Your task to perform on an android device: Open Google Image 0: 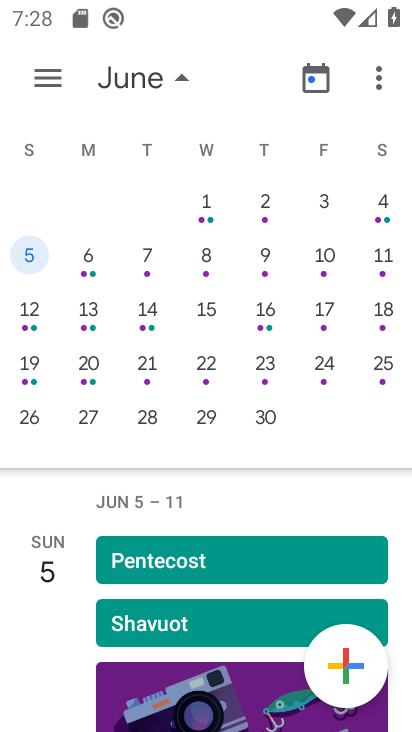
Step 0: press home button
Your task to perform on an android device: Open Google Image 1: 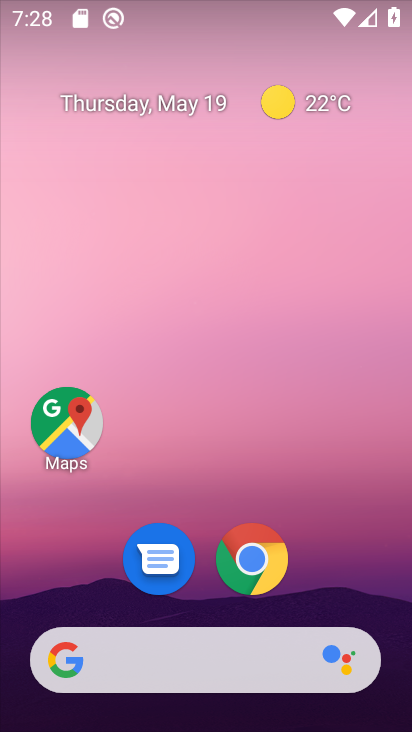
Step 1: drag from (312, 590) to (273, 12)
Your task to perform on an android device: Open Google Image 2: 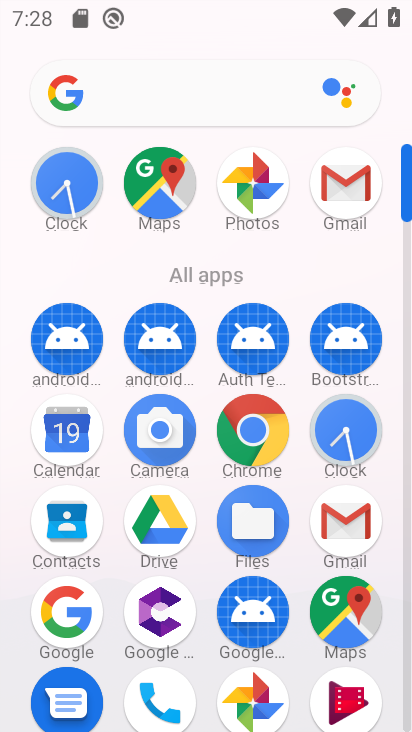
Step 2: click (63, 623)
Your task to perform on an android device: Open Google Image 3: 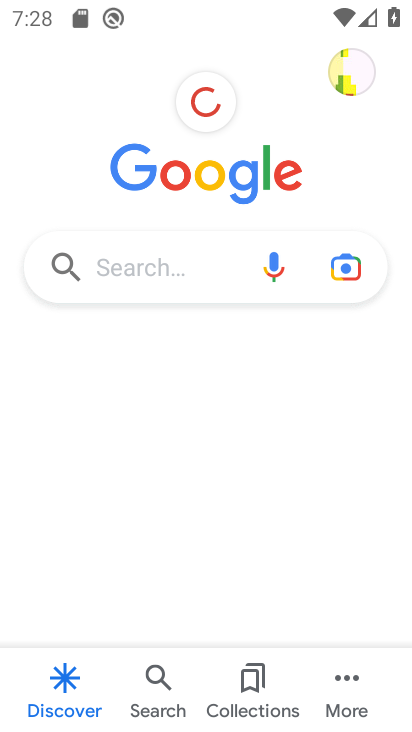
Step 3: task complete